Your task to perform on an android device: toggle notifications settings in the gmail app Image 0: 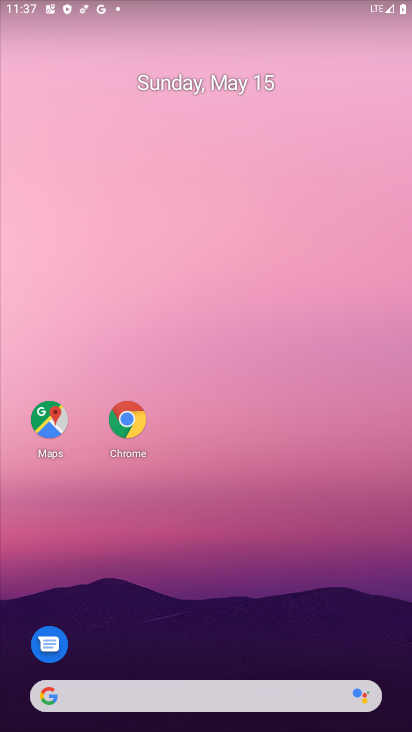
Step 0: click (238, 178)
Your task to perform on an android device: toggle notifications settings in the gmail app Image 1: 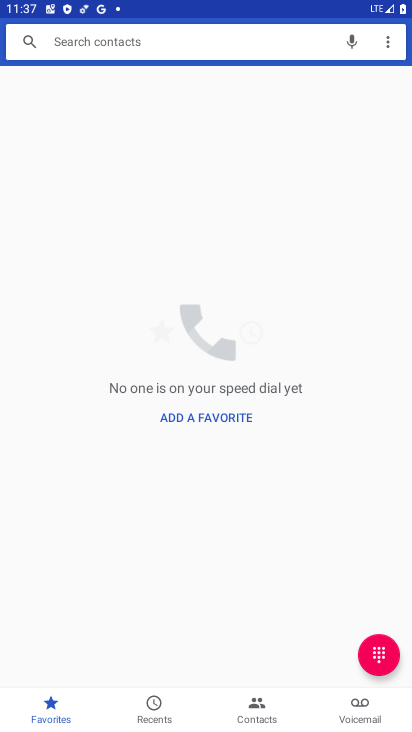
Step 1: drag from (163, 570) to (231, 210)
Your task to perform on an android device: toggle notifications settings in the gmail app Image 2: 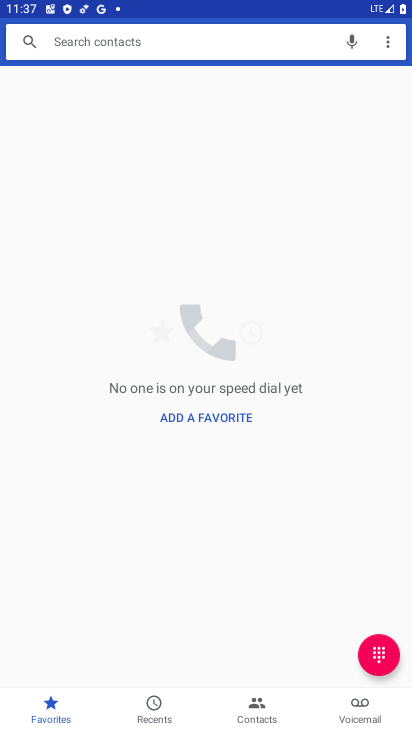
Step 2: drag from (195, 405) to (224, 290)
Your task to perform on an android device: toggle notifications settings in the gmail app Image 3: 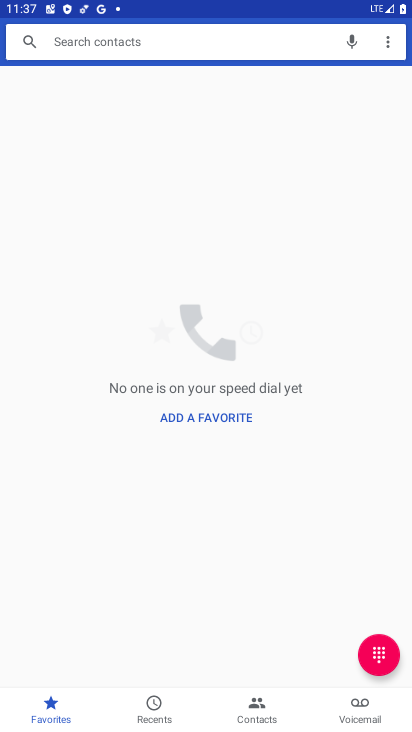
Step 3: drag from (159, 636) to (332, 186)
Your task to perform on an android device: toggle notifications settings in the gmail app Image 4: 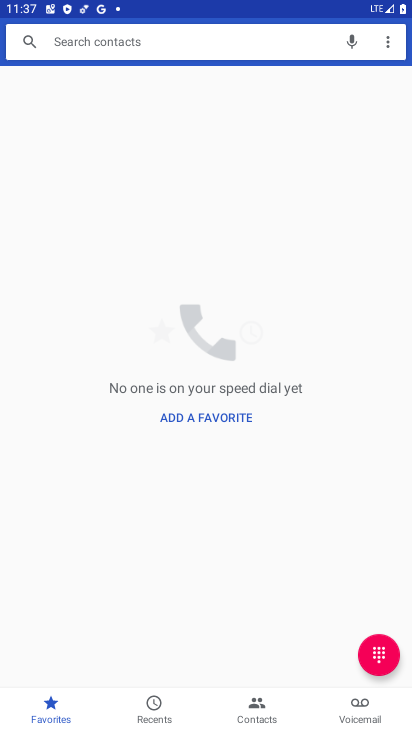
Step 4: press home button
Your task to perform on an android device: toggle notifications settings in the gmail app Image 5: 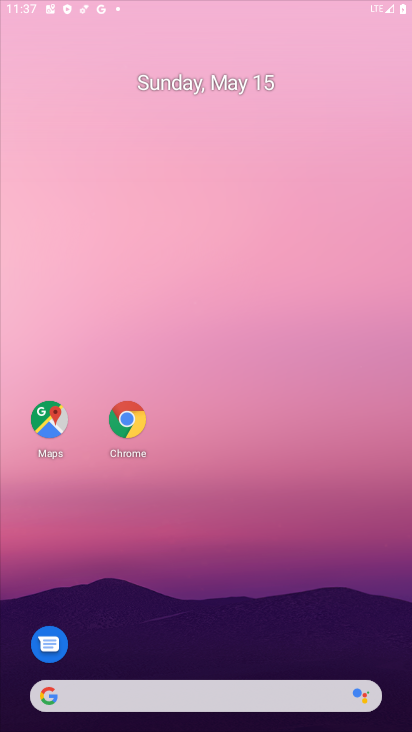
Step 5: drag from (257, 668) to (278, 100)
Your task to perform on an android device: toggle notifications settings in the gmail app Image 6: 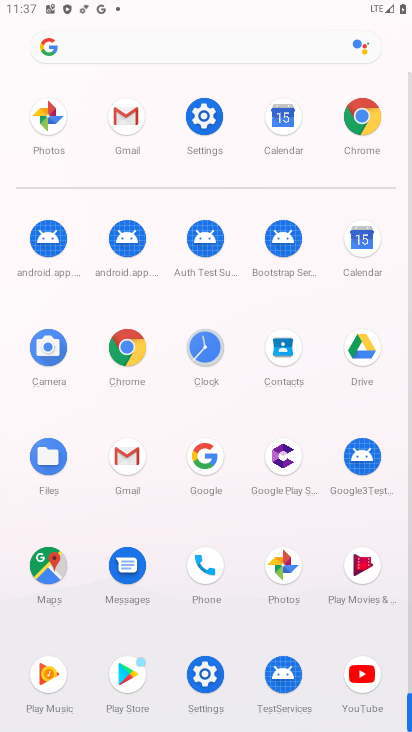
Step 6: click (122, 452)
Your task to perform on an android device: toggle notifications settings in the gmail app Image 7: 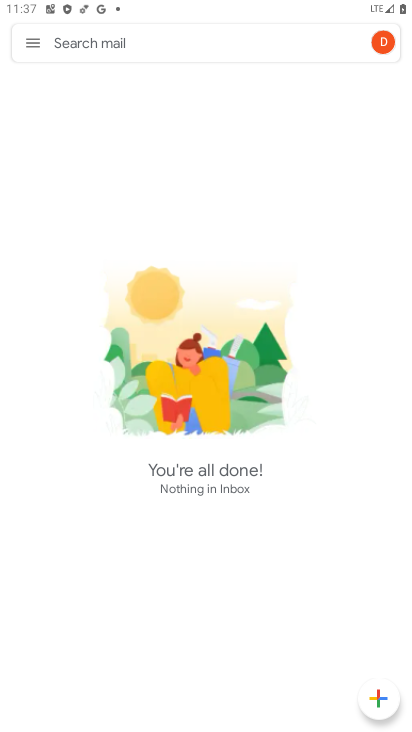
Step 7: click (32, 51)
Your task to perform on an android device: toggle notifications settings in the gmail app Image 8: 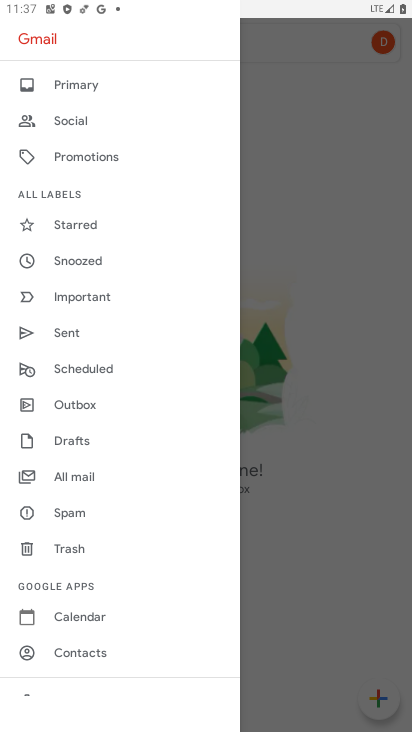
Step 8: drag from (126, 454) to (137, 152)
Your task to perform on an android device: toggle notifications settings in the gmail app Image 9: 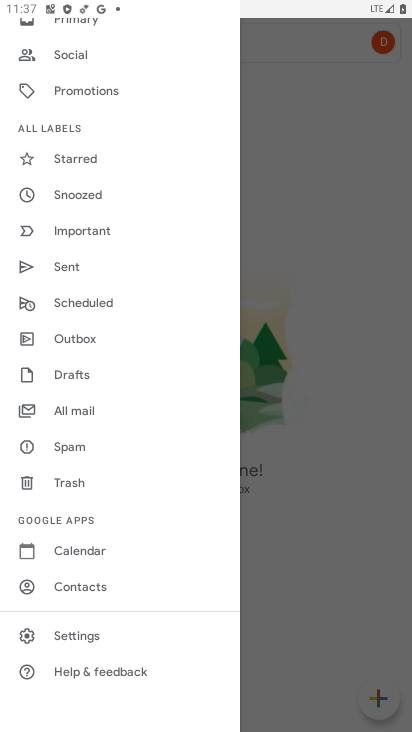
Step 9: click (74, 632)
Your task to perform on an android device: toggle notifications settings in the gmail app Image 10: 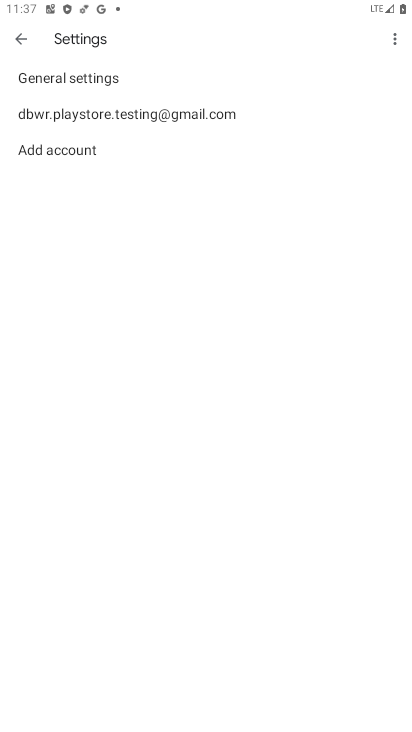
Step 10: click (159, 106)
Your task to perform on an android device: toggle notifications settings in the gmail app Image 11: 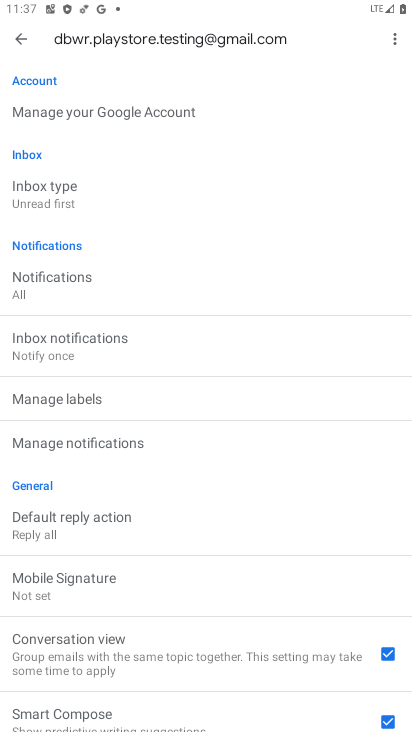
Step 11: click (98, 447)
Your task to perform on an android device: toggle notifications settings in the gmail app Image 12: 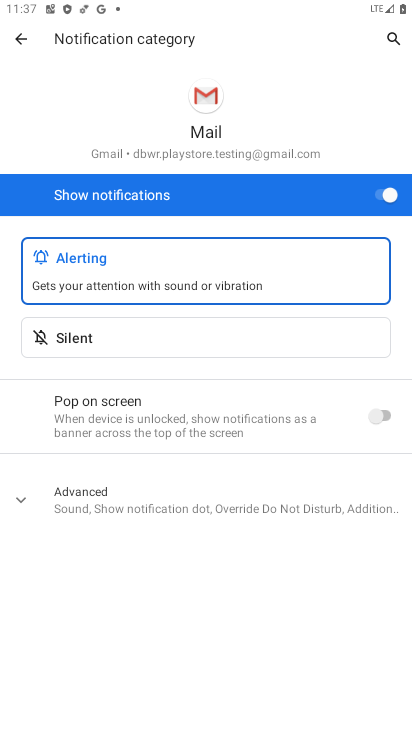
Step 12: click (369, 193)
Your task to perform on an android device: toggle notifications settings in the gmail app Image 13: 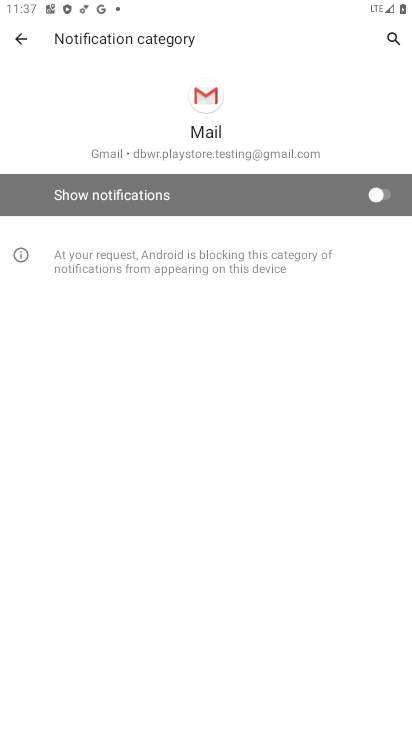
Step 13: task complete